Your task to perform on an android device: Open the calendar and show me this week's events? Image 0: 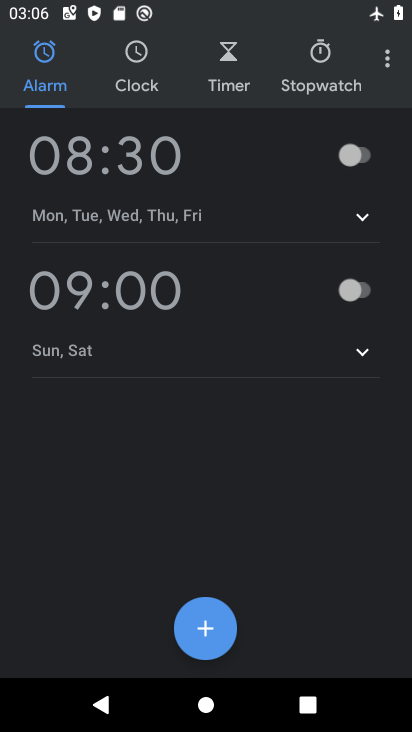
Step 0: press back button
Your task to perform on an android device: Open the calendar and show me this week's events? Image 1: 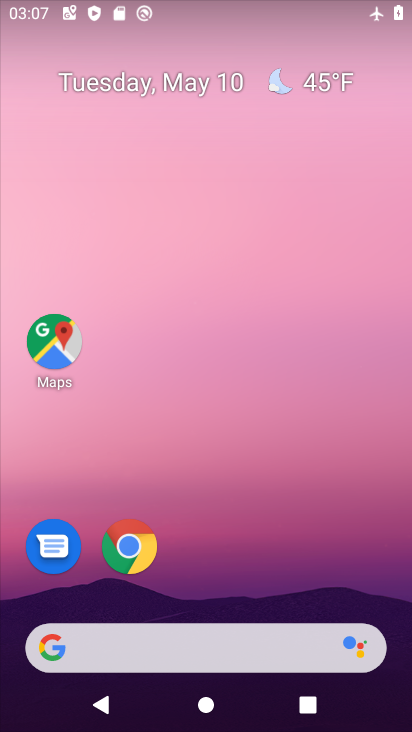
Step 1: drag from (266, 547) to (222, 46)
Your task to perform on an android device: Open the calendar and show me this week's events? Image 2: 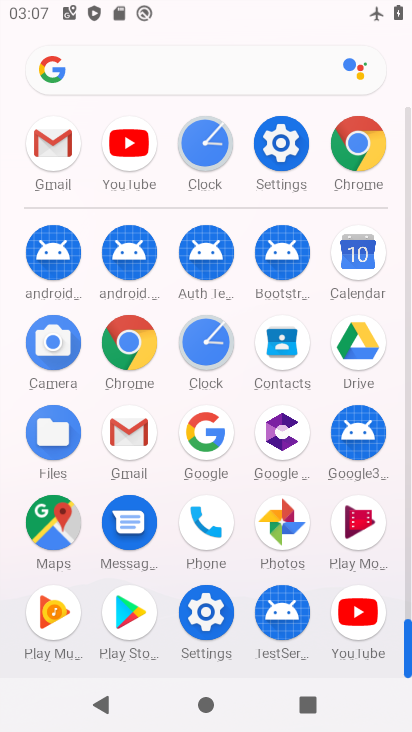
Step 2: drag from (2, 494) to (26, 203)
Your task to perform on an android device: Open the calendar and show me this week's events? Image 3: 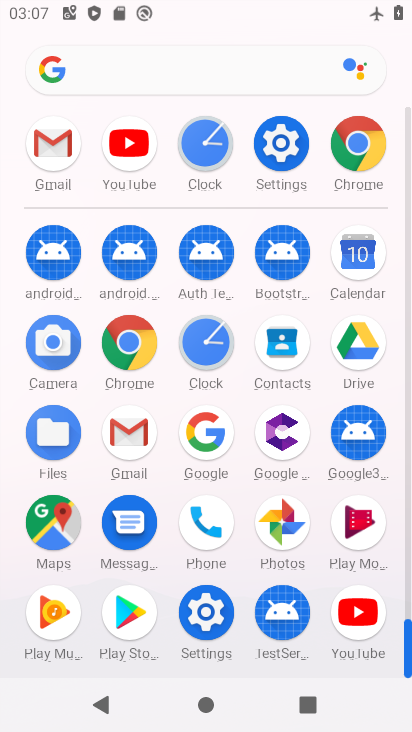
Step 3: drag from (10, 496) to (6, 313)
Your task to perform on an android device: Open the calendar and show me this week's events? Image 4: 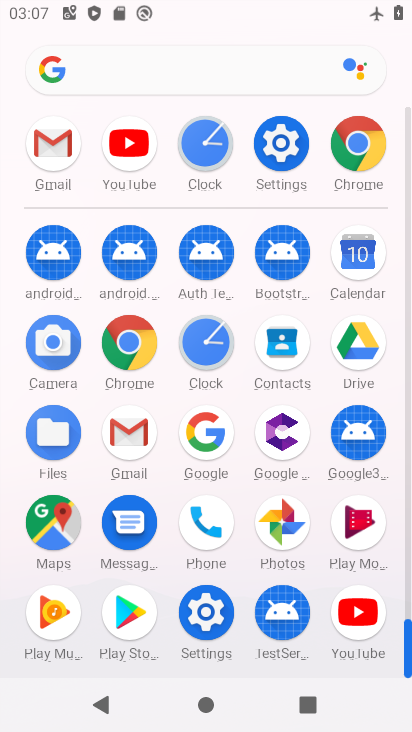
Step 4: click (357, 252)
Your task to perform on an android device: Open the calendar and show me this week's events? Image 5: 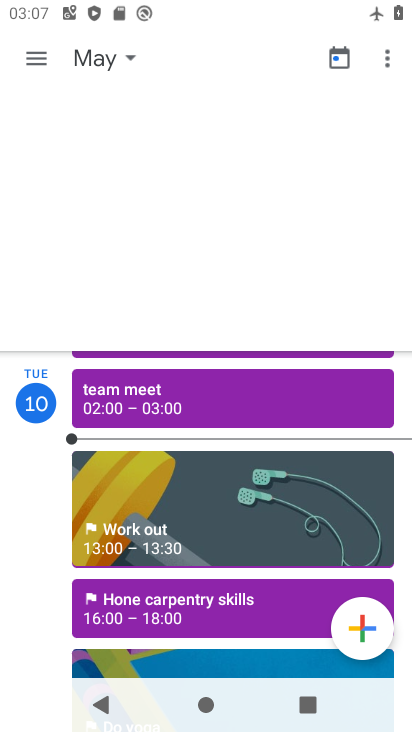
Step 5: click (44, 66)
Your task to perform on an android device: Open the calendar and show me this week's events? Image 6: 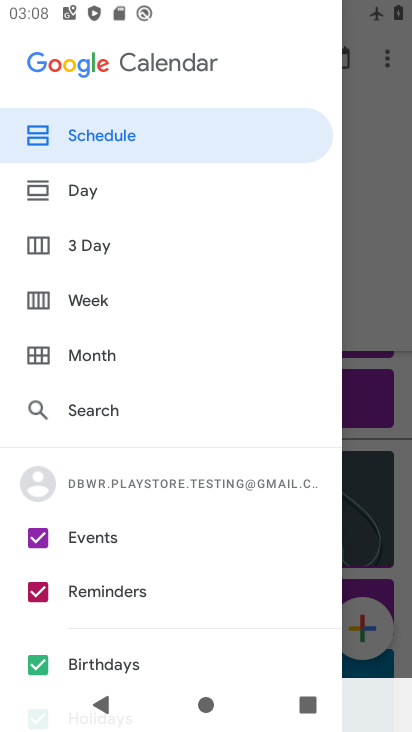
Step 6: click (112, 305)
Your task to perform on an android device: Open the calendar and show me this week's events? Image 7: 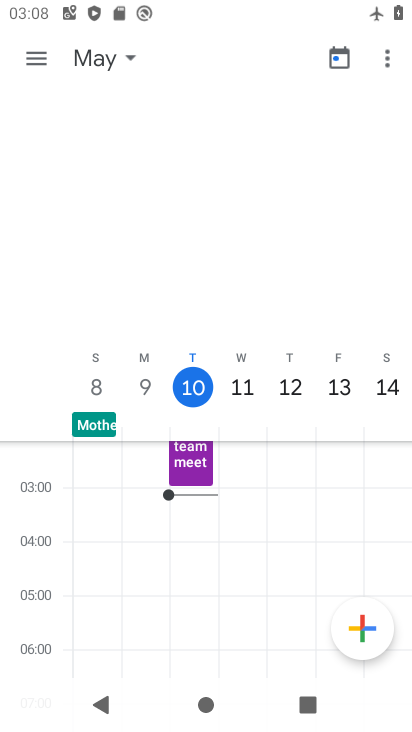
Step 7: task complete